Your task to perform on an android device: Open my contact list Image 0: 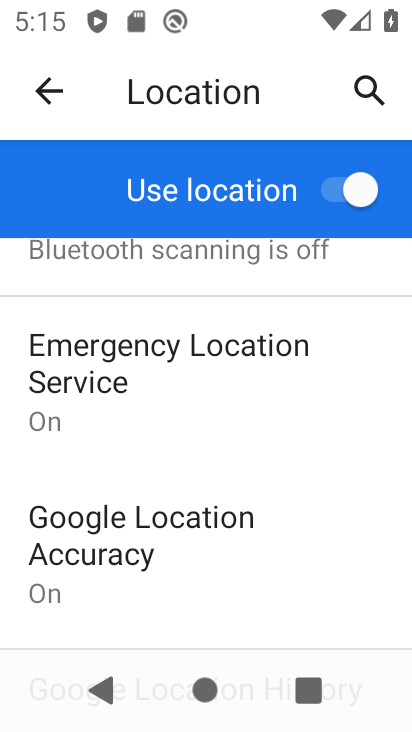
Step 0: press home button
Your task to perform on an android device: Open my contact list Image 1: 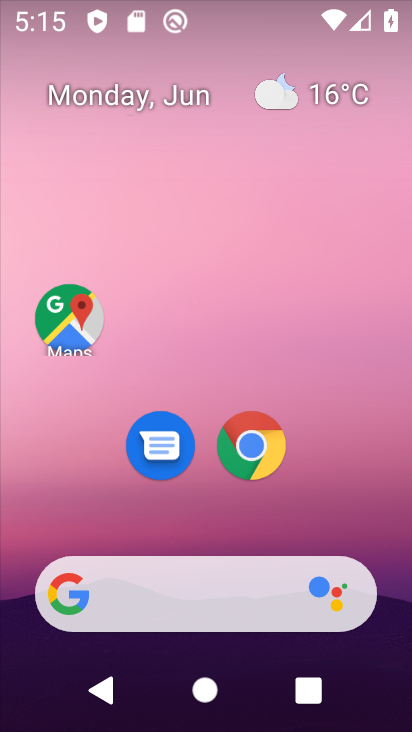
Step 1: drag from (312, 532) to (249, 107)
Your task to perform on an android device: Open my contact list Image 2: 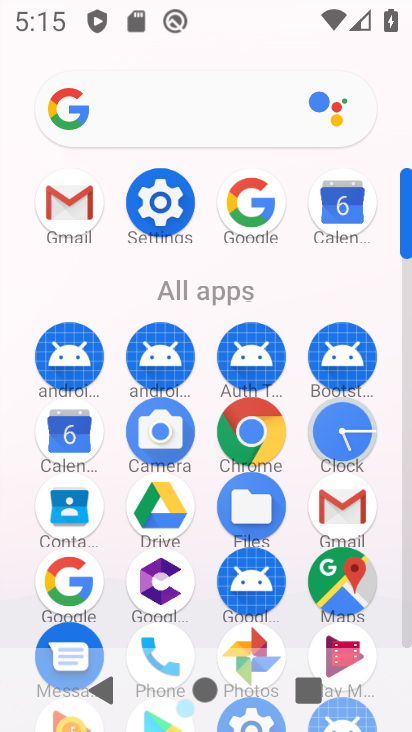
Step 2: click (72, 520)
Your task to perform on an android device: Open my contact list Image 3: 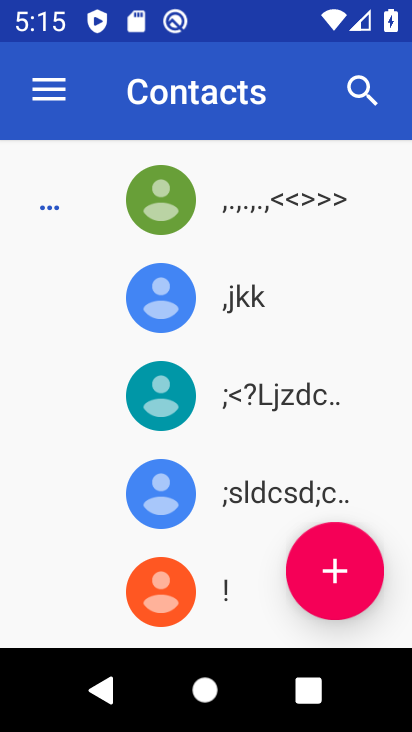
Step 3: task complete